Your task to perform on an android device: change the clock display to show seconds Image 0: 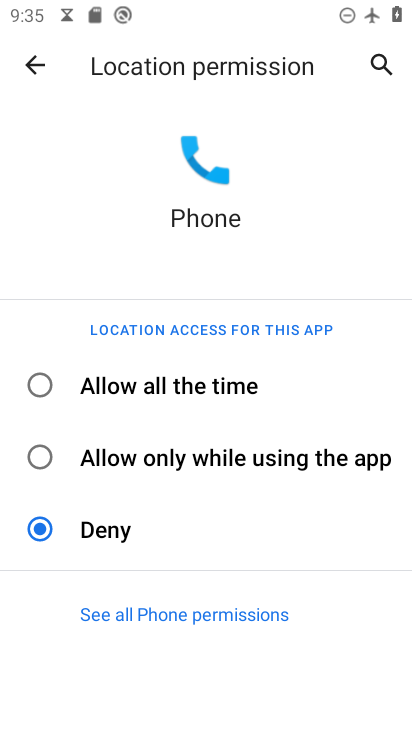
Step 0: press home button
Your task to perform on an android device: change the clock display to show seconds Image 1: 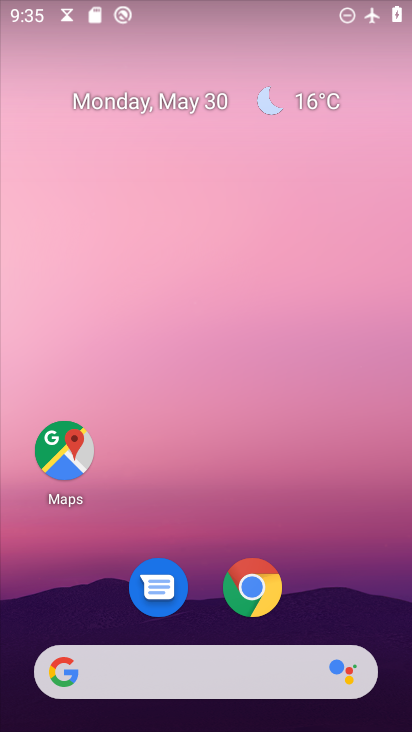
Step 1: drag from (241, 584) to (325, 64)
Your task to perform on an android device: change the clock display to show seconds Image 2: 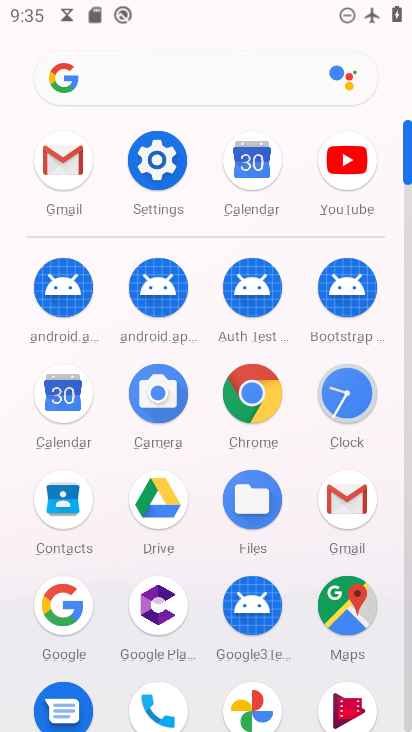
Step 2: click (352, 407)
Your task to perform on an android device: change the clock display to show seconds Image 3: 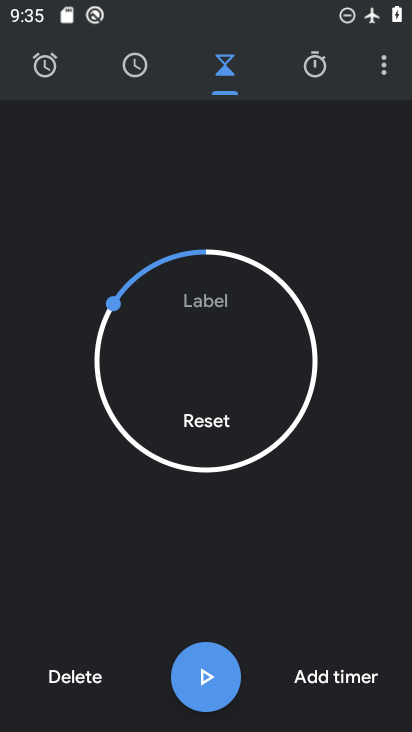
Step 3: click (382, 70)
Your task to perform on an android device: change the clock display to show seconds Image 4: 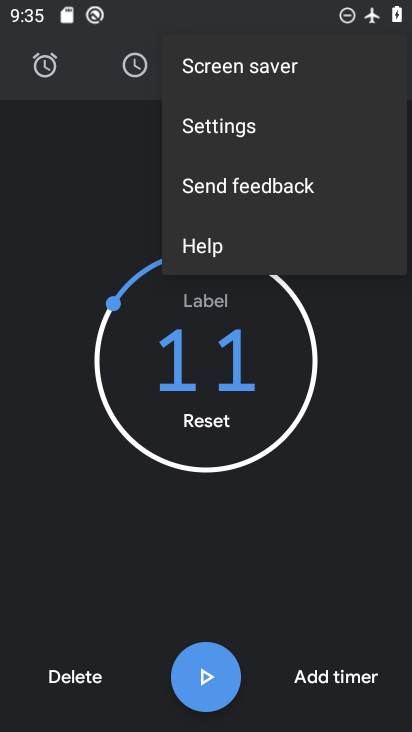
Step 4: click (263, 124)
Your task to perform on an android device: change the clock display to show seconds Image 5: 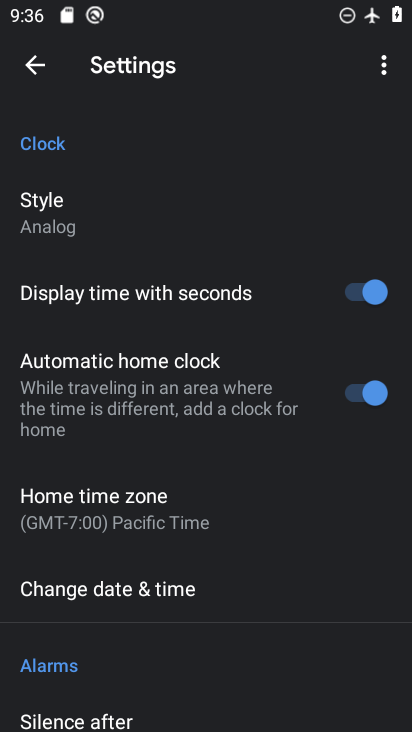
Step 5: task complete